Your task to perform on an android device: set the timer Image 0: 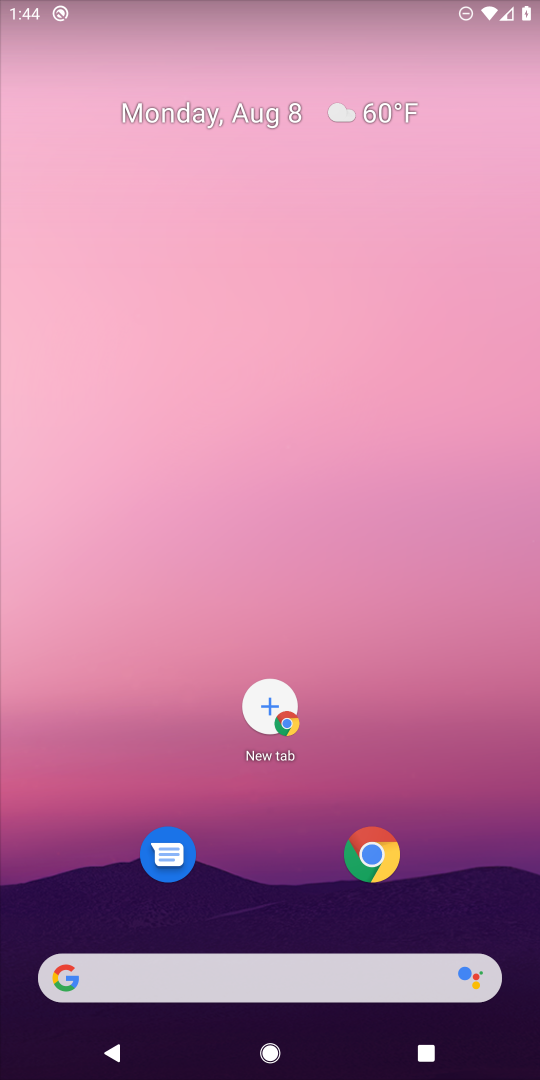
Step 0: press home button
Your task to perform on an android device: set the timer Image 1: 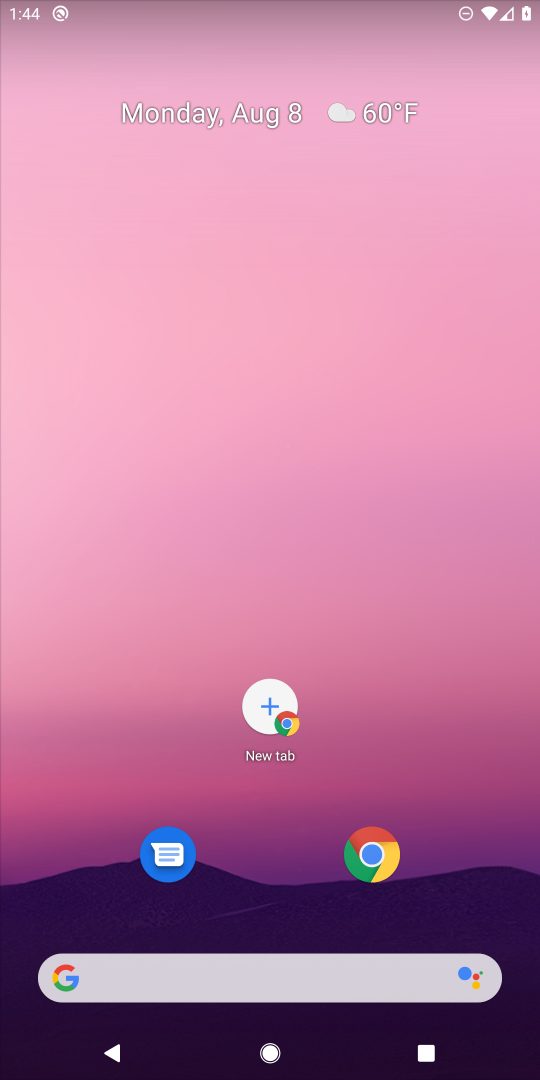
Step 1: drag from (460, 858) to (371, 189)
Your task to perform on an android device: set the timer Image 2: 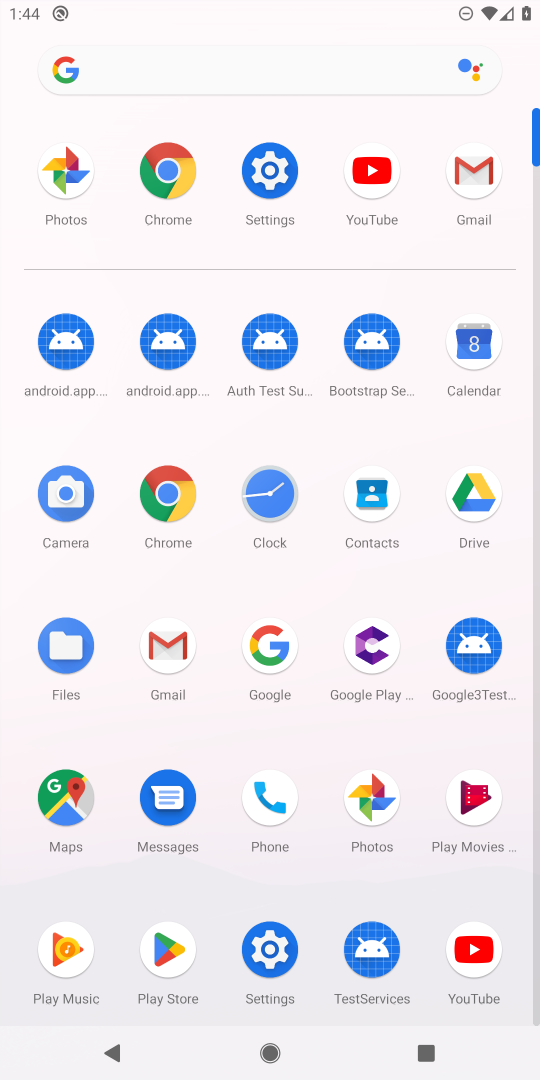
Step 2: click (268, 481)
Your task to perform on an android device: set the timer Image 3: 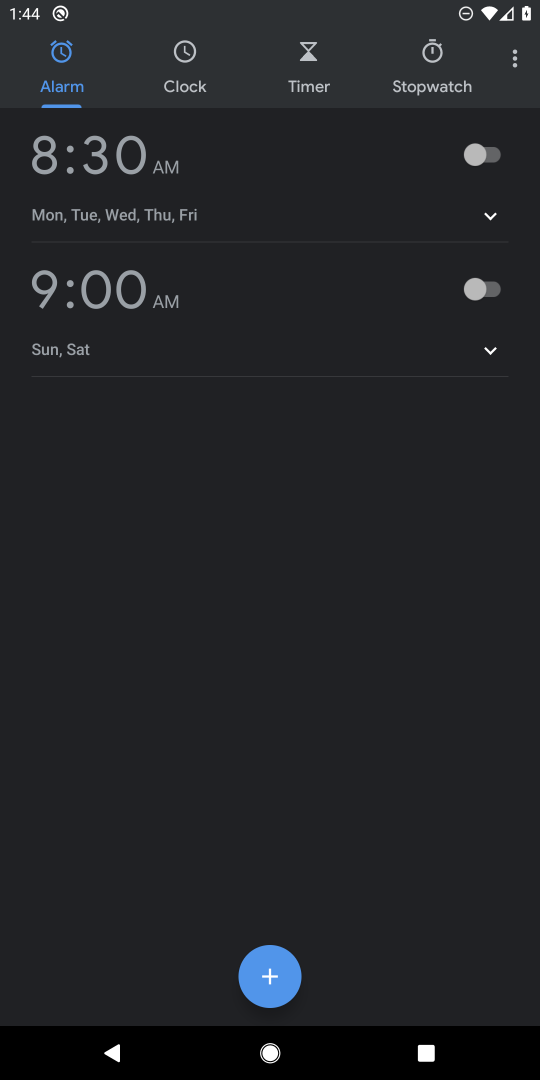
Step 3: click (308, 58)
Your task to perform on an android device: set the timer Image 4: 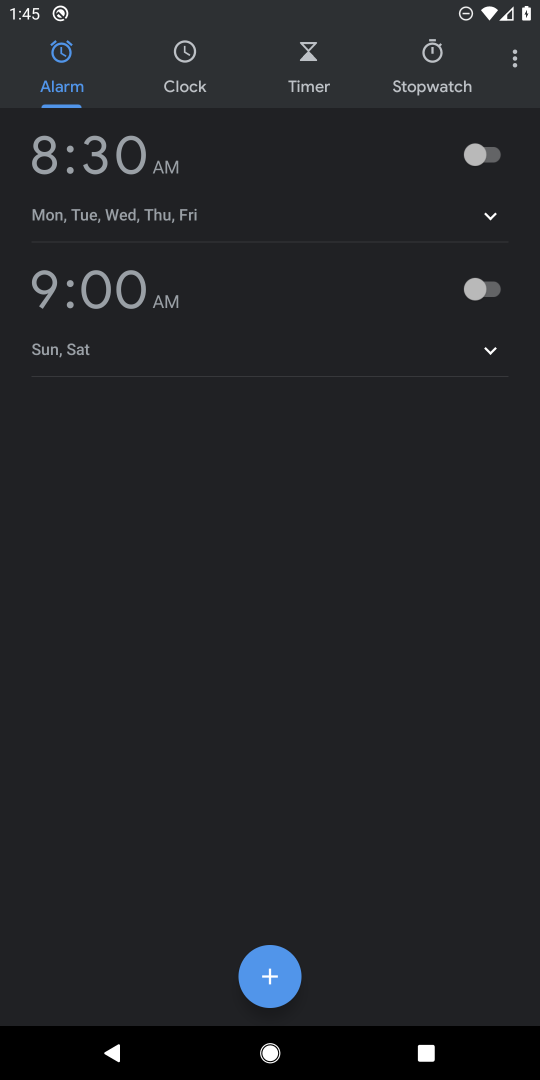
Step 4: click (323, 54)
Your task to perform on an android device: set the timer Image 5: 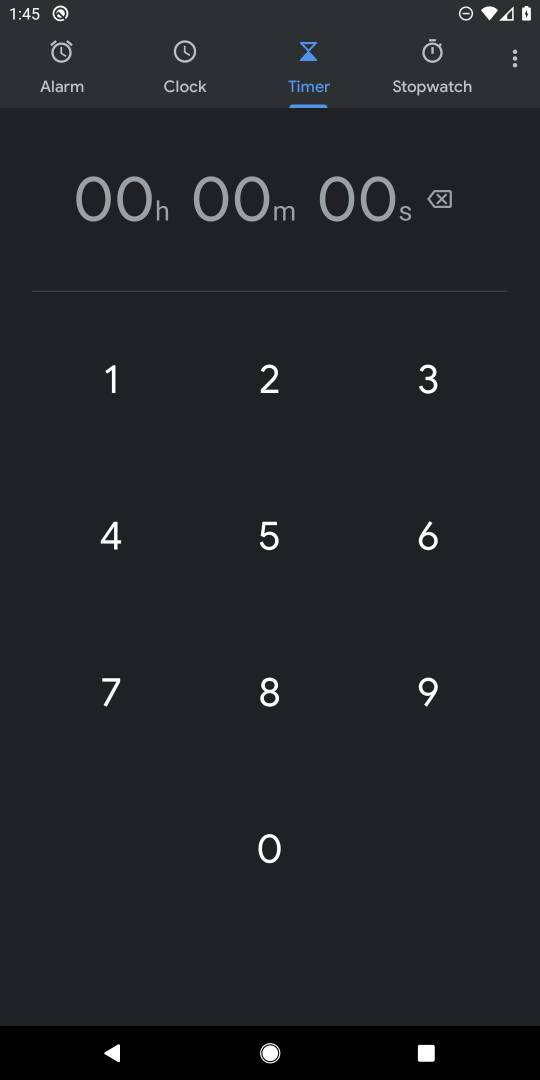
Step 5: click (307, 677)
Your task to perform on an android device: set the timer Image 6: 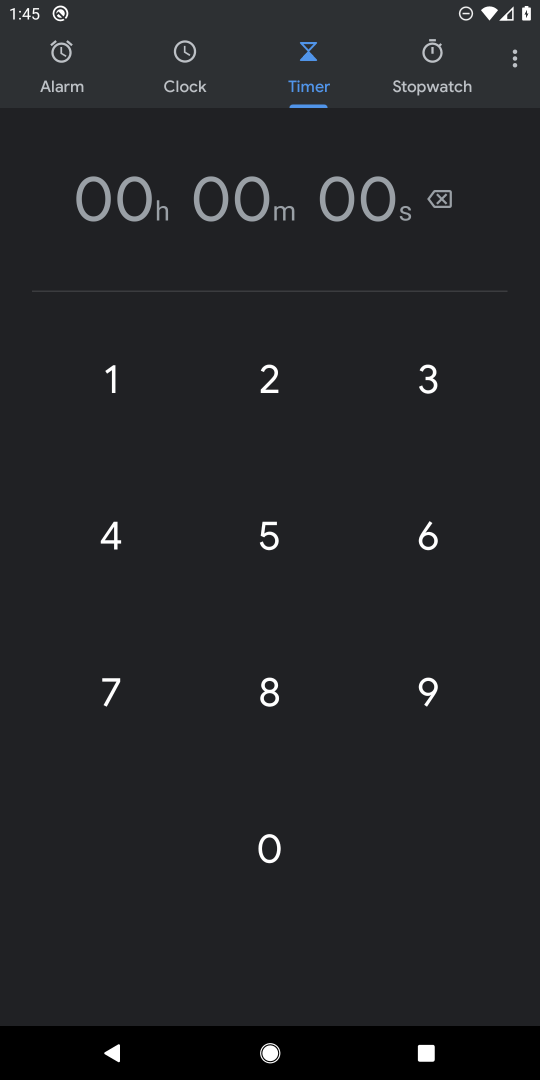
Step 6: click (165, 717)
Your task to perform on an android device: set the timer Image 7: 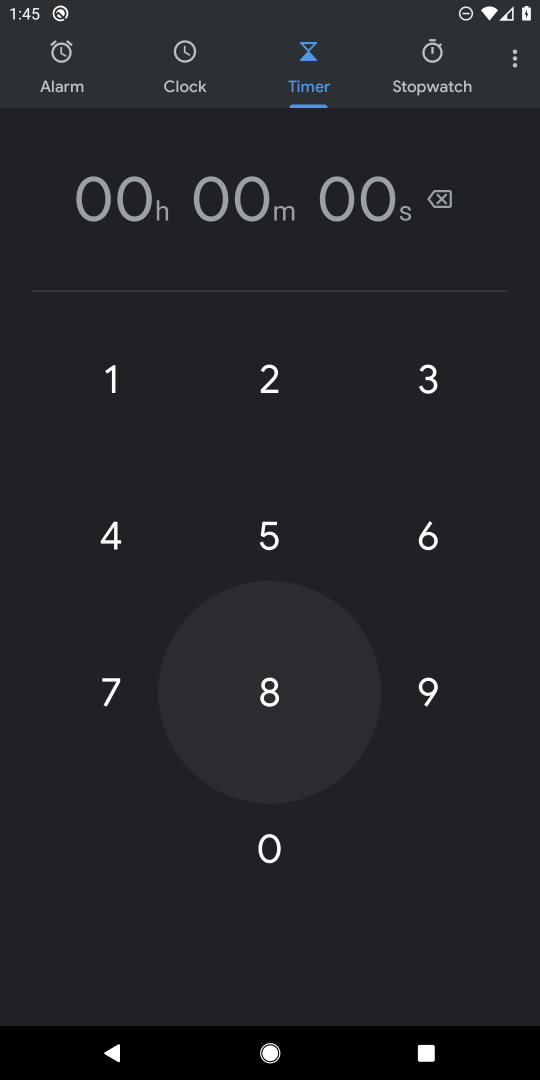
Step 7: click (314, 597)
Your task to perform on an android device: set the timer Image 8: 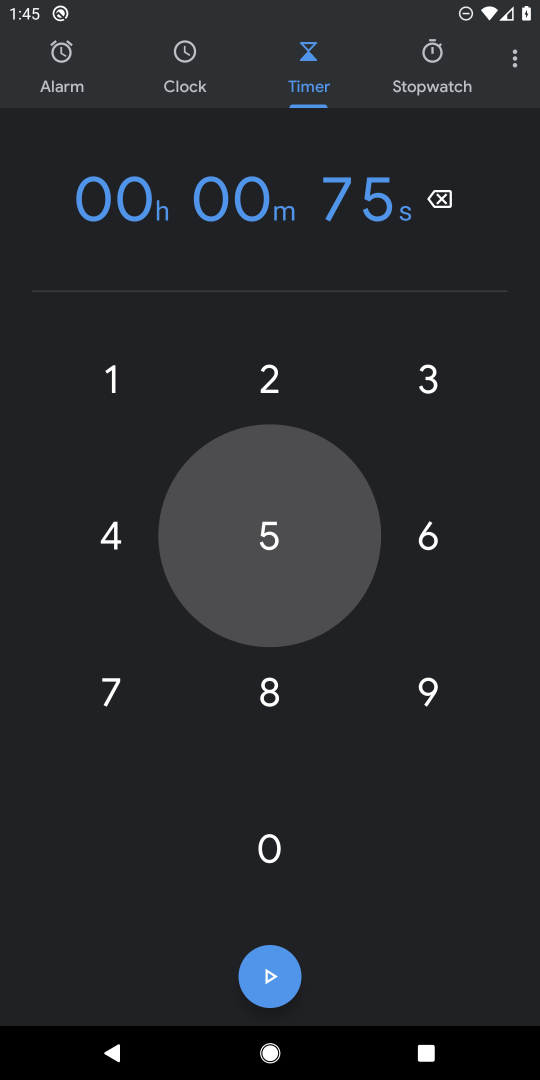
Step 8: click (274, 541)
Your task to perform on an android device: set the timer Image 9: 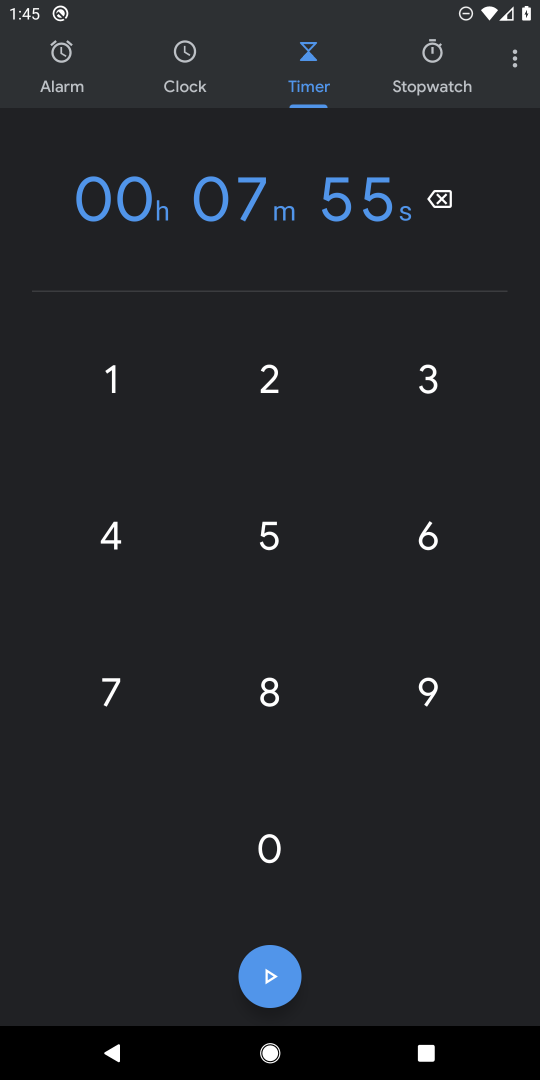
Step 9: click (409, 549)
Your task to perform on an android device: set the timer Image 10: 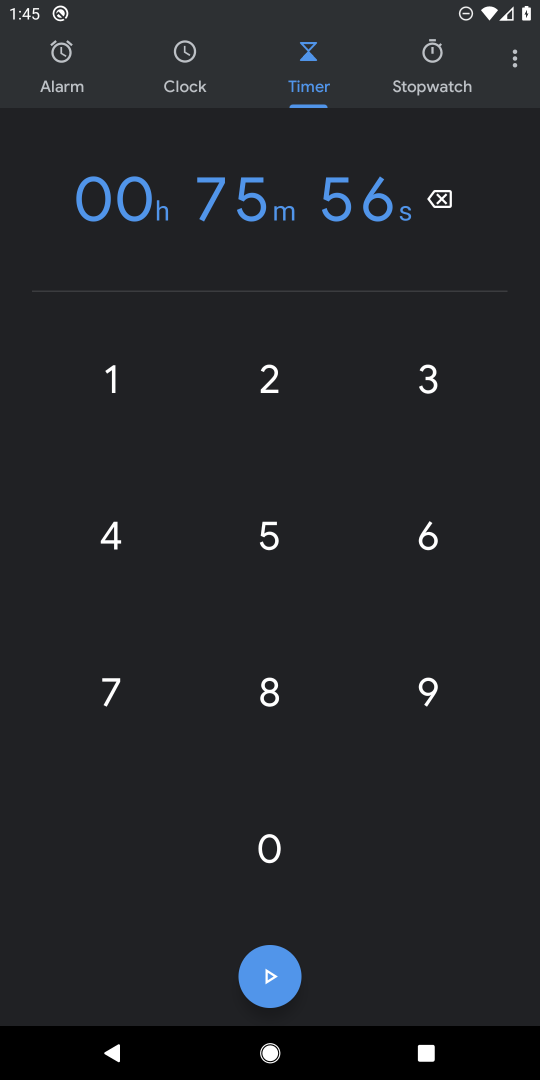
Step 10: click (268, 530)
Your task to perform on an android device: set the timer Image 11: 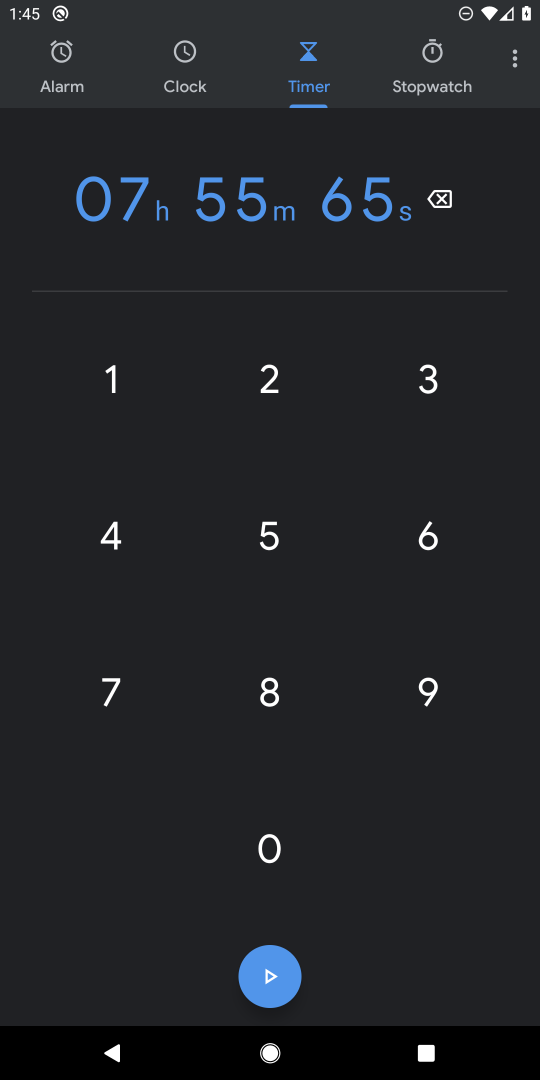
Step 11: click (267, 984)
Your task to perform on an android device: set the timer Image 12: 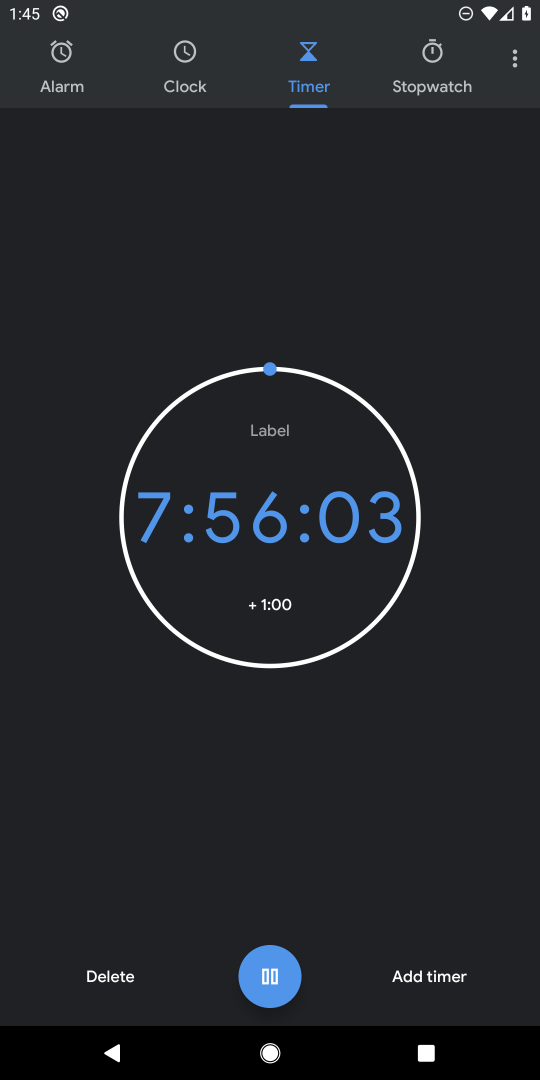
Step 12: task complete